Your task to perform on an android device: visit the assistant section in the google photos Image 0: 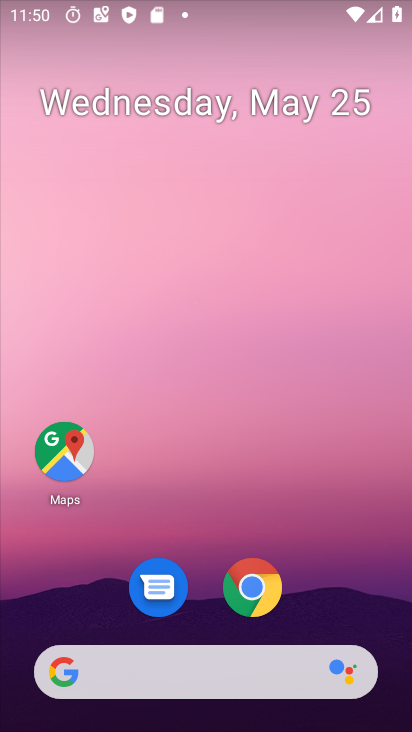
Step 0: drag from (206, 674) to (272, 91)
Your task to perform on an android device: visit the assistant section in the google photos Image 1: 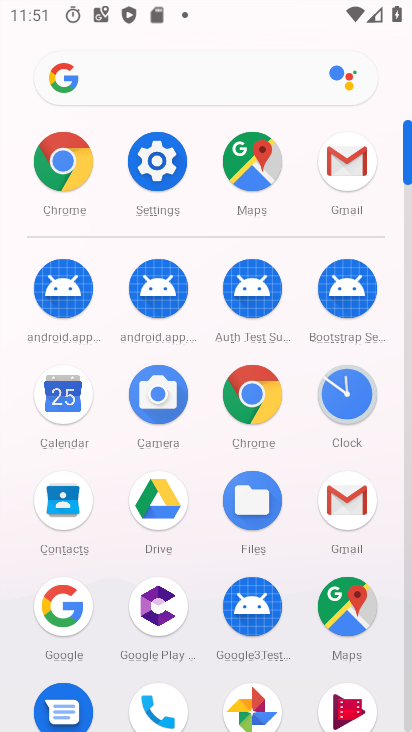
Step 1: click (256, 699)
Your task to perform on an android device: visit the assistant section in the google photos Image 2: 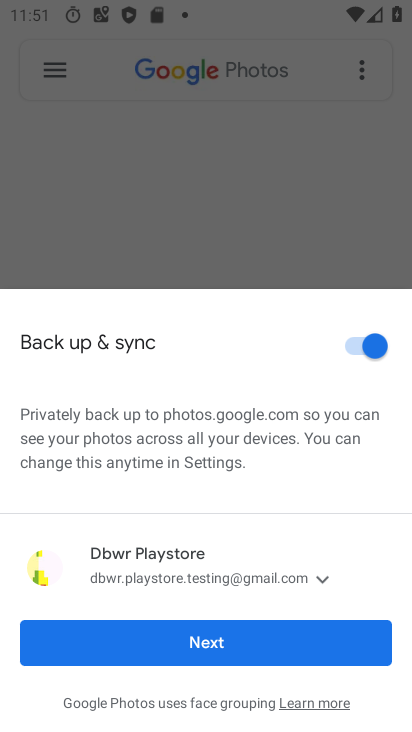
Step 2: click (263, 654)
Your task to perform on an android device: visit the assistant section in the google photos Image 3: 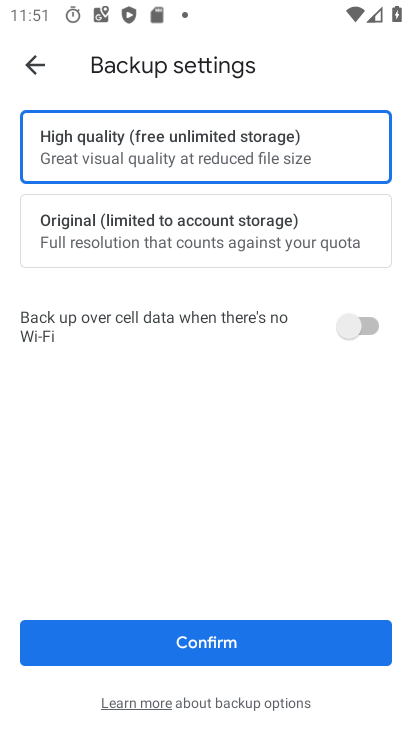
Step 3: click (255, 646)
Your task to perform on an android device: visit the assistant section in the google photos Image 4: 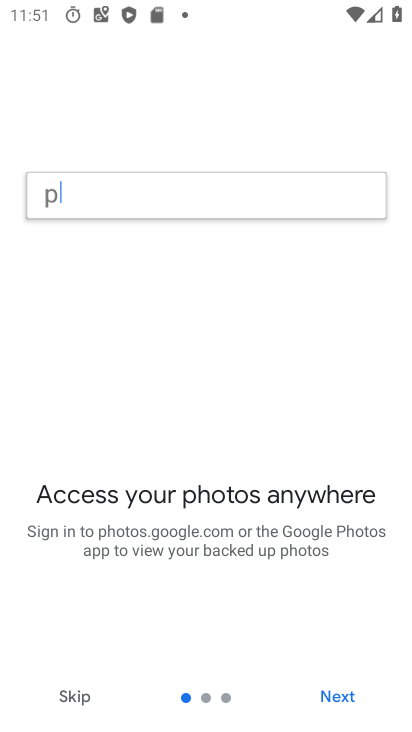
Step 4: click (254, 642)
Your task to perform on an android device: visit the assistant section in the google photos Image 5: 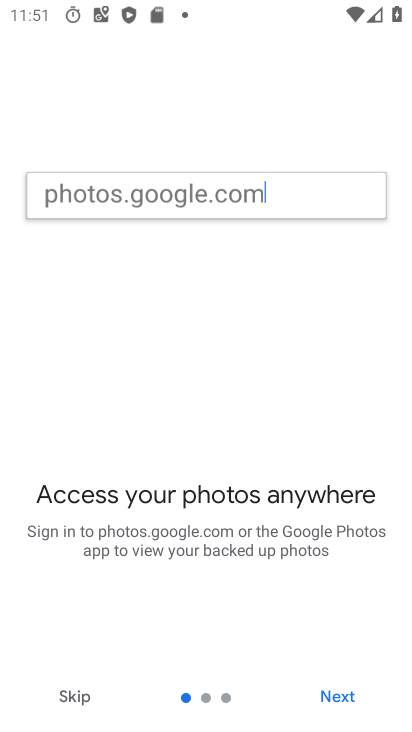
Step 5: click (334, 699)
Your task to perform on an android device: visit the assistant section in the google photos Image 6: 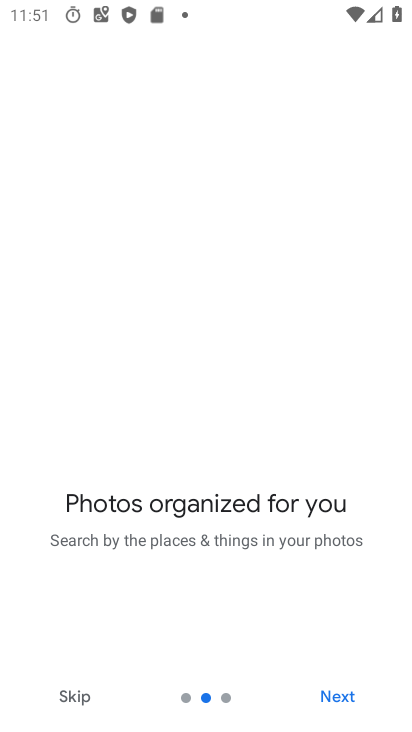
Step 6: click (322, 693)
Your task to perform on an android device: visit the assistant section in the google photos Image 7: 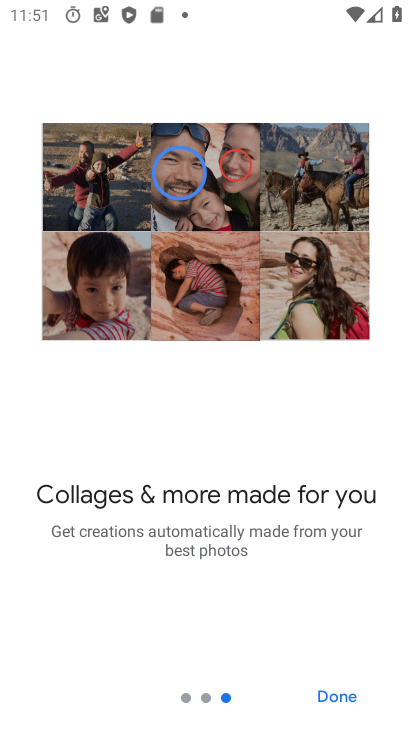
Step 7: click (316, 695)
Your task to perform on an android device: visit the assistant section in the google photos Image 8: 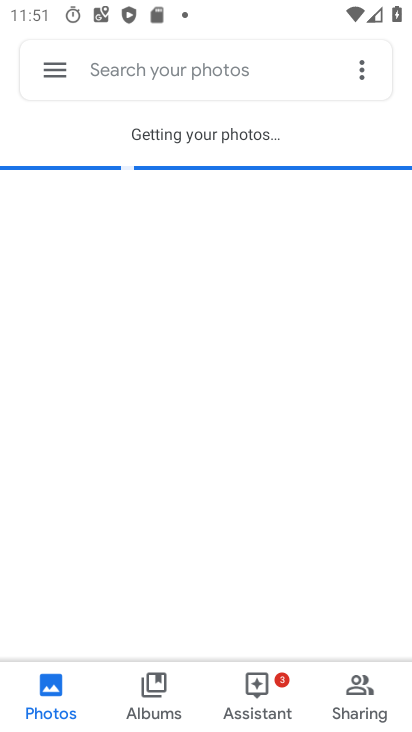
Step 8: click (230, 712)
Your task to perform on an android device: visit the assistant section in the google photos Image 9: 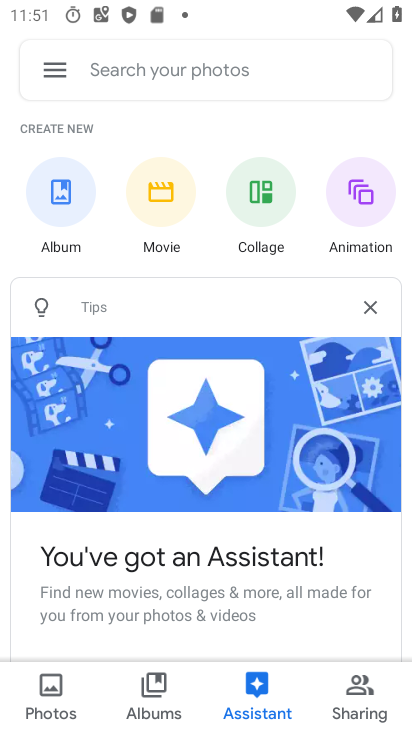
Step 9: task complete